Your task to perform on an android device: Turn on the flashlight Image 0: 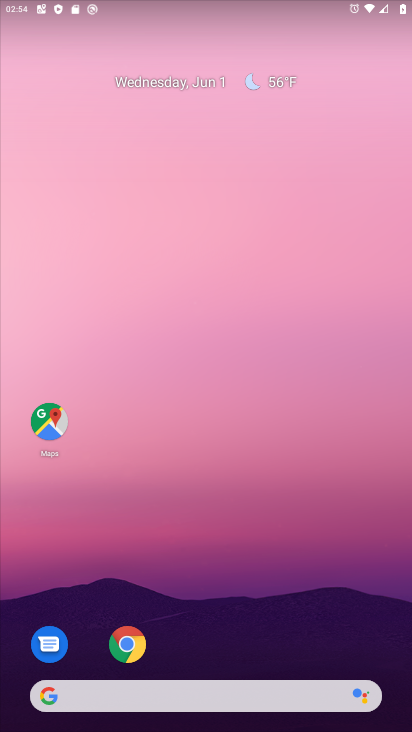
Step 0: click (121, 643)
Your task to perform on an android device: Turn on the flashlight Image 1: 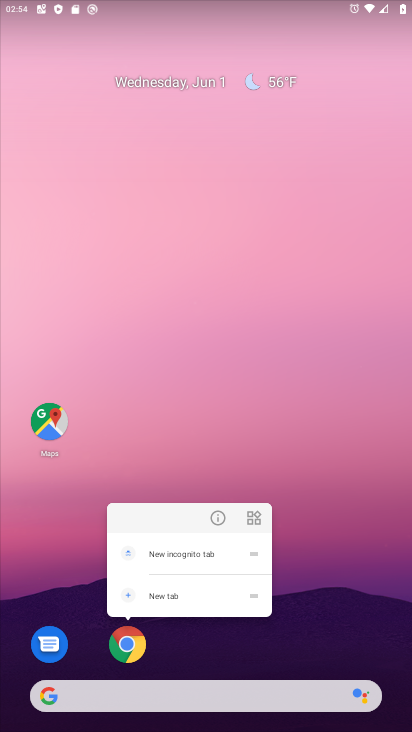
Step 1: click (115, 653)
Your task to perform on an android device: Turn on the flashlight Image 2: 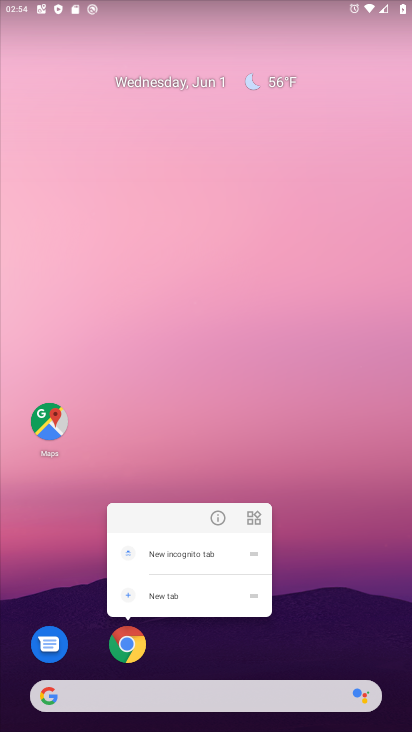
Step 2: click (132, 646)
Your task to perform on an android device: Turn on the flashlight Image 3: 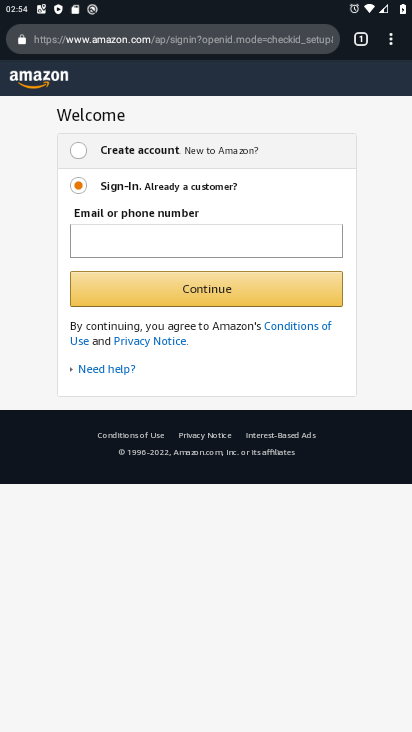
Step 3: press home button
Your task to perform on an android device: Turn on the flashlight Image 4: 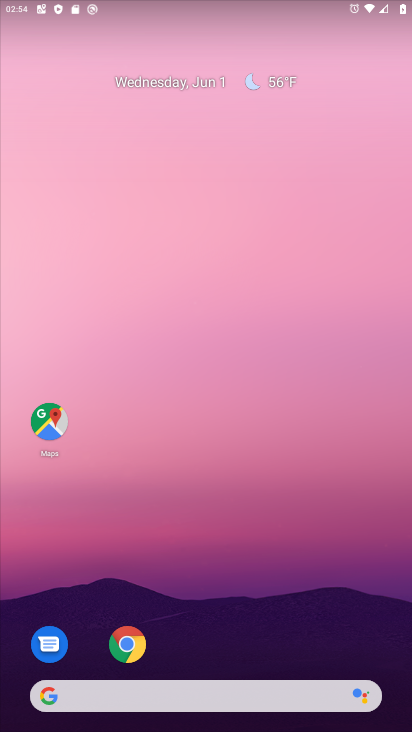
Step 4: drag from (209, 10) to (210, 468)
Your task to perform on an android device: Turn on the flashlight Image 5: 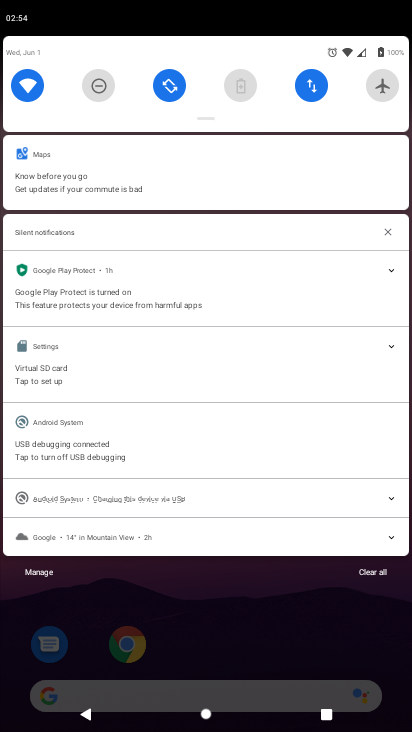
Step 5: drag from (261, 77) to (297, 518)
Your task to perform on an android device: Turn on the flashlight Image 6: 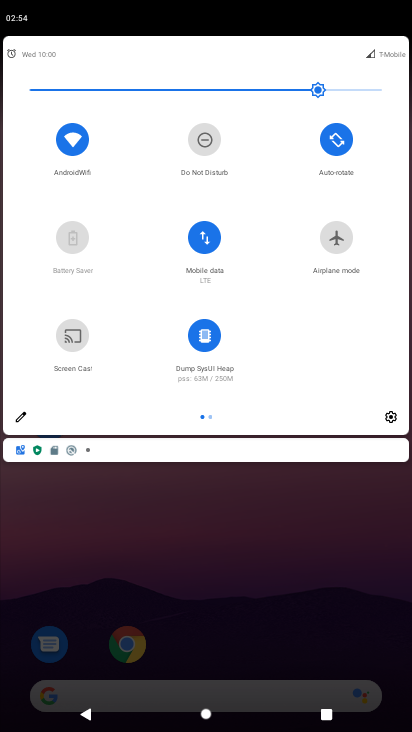
Step 6: drag from (124, 365) to (9, 422)
Your task to perform on an android device: Turn on the flashlight Image 7: 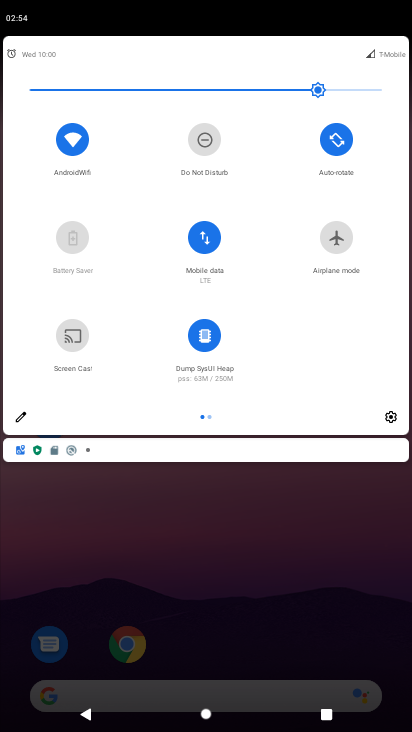
Step 7: click (27, 415)
Your task to perform on an android device: Turn on the flashlight Image 8: 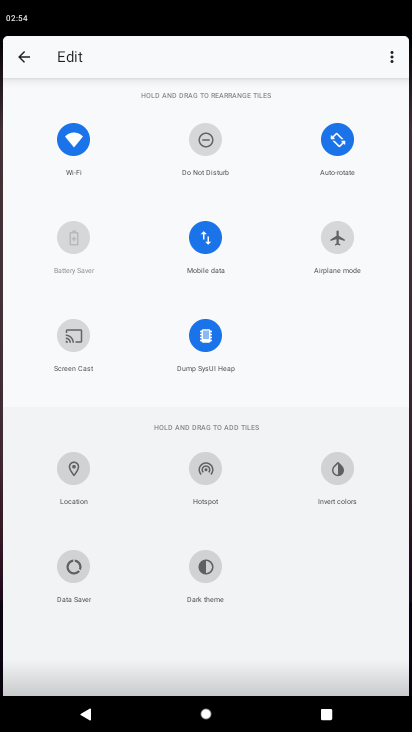
Step 8: task complete